Your task to perform on an android device: Show me popular games on the Play Store Image 0: 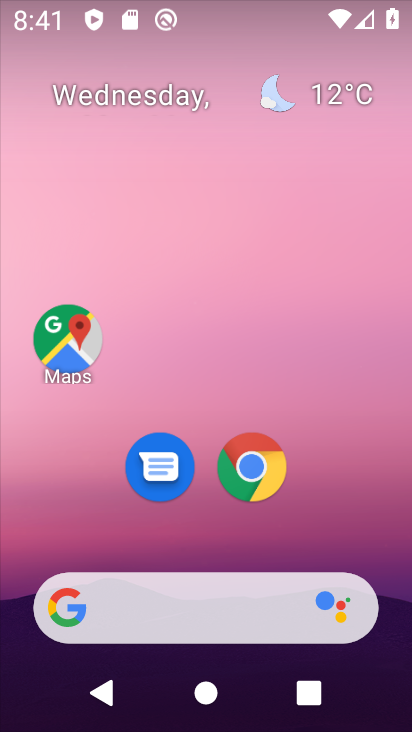
Step 0: drag from (206, 472) to (269, 31)
Your task to perform on an android device: Show me popular games on the Play Store Image 1: 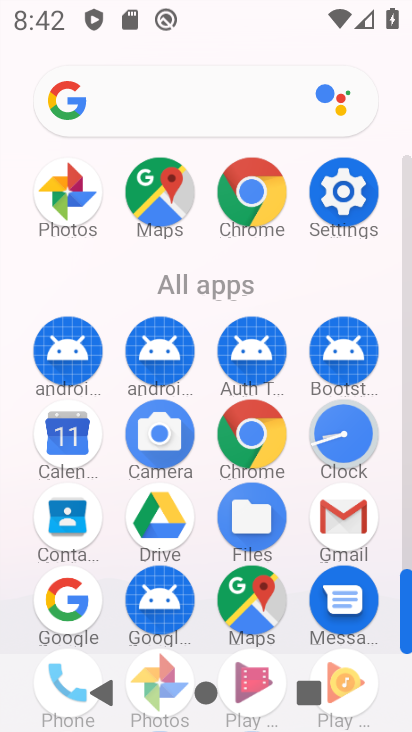
Step 1: drag from (233, 538) to (278, 72)
Your task to perform on an android device: Show me popular games on the Play Store Image 2: 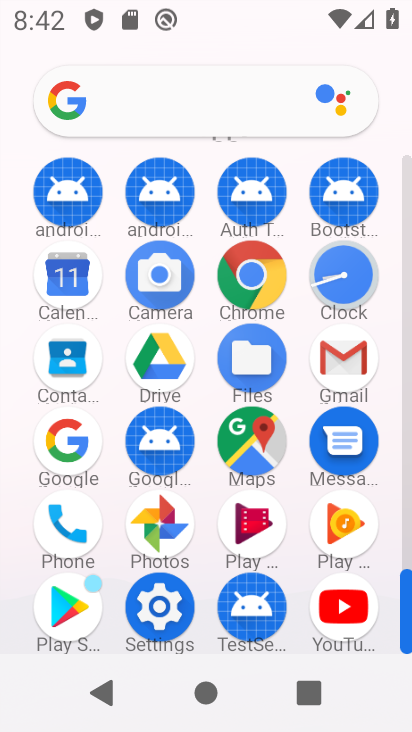
Step 2: click (65, 578)
Your task to perform on an android device: Show me popular games on the Play Store Image 3: 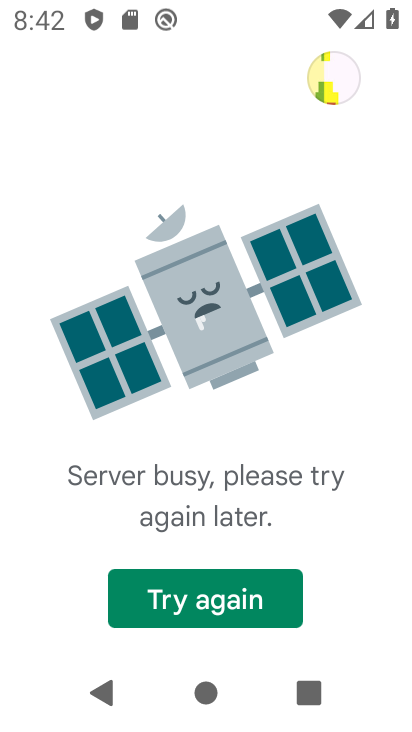
Step 3: click (159, 579)
Your task to perform on an android device: Show me popular games on the Play Store Image 4: 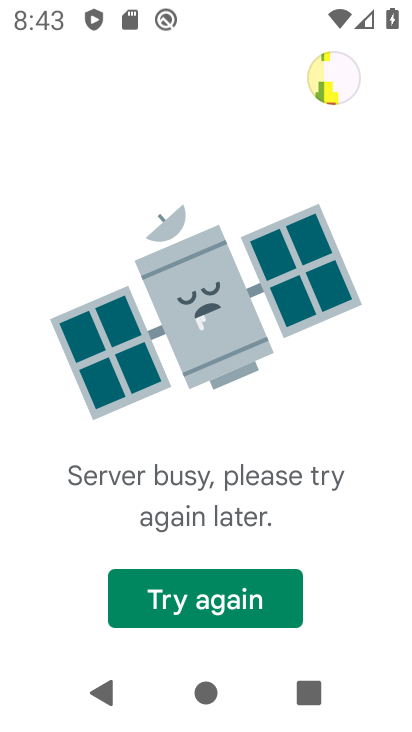
Step 4: task complete